Your task to perform on an android device: Open ESPN.com Image 0: 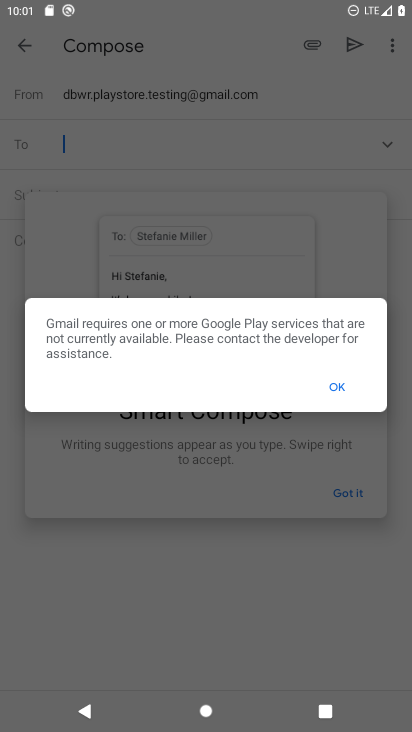
Step 0: press home button
Your task to perform on an android device: Open ESPN.com Image 1: 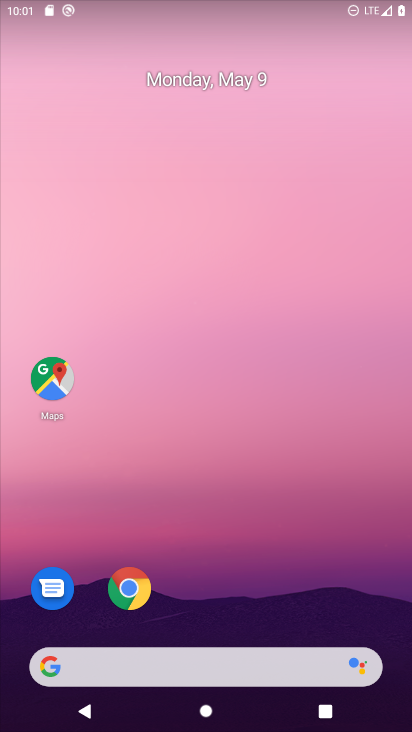
Step 1: drag from (236, 546) to (225, 205)
Your task to perform on an android device: Open ESPN.com Image 2: 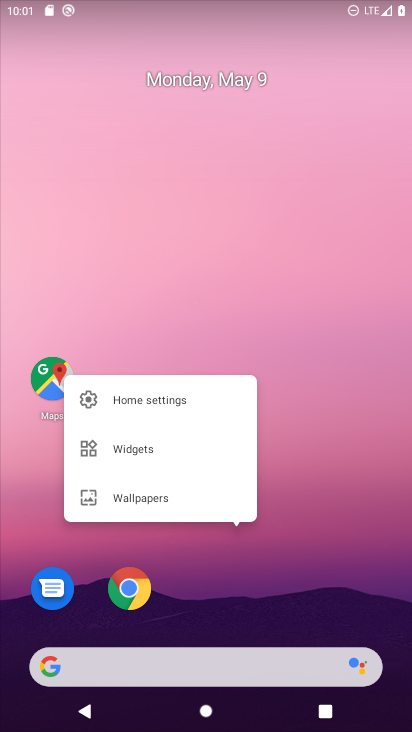
Step 2: click (296, 568)
Your task to perform on an android device: Open ESPN.com Image 3: 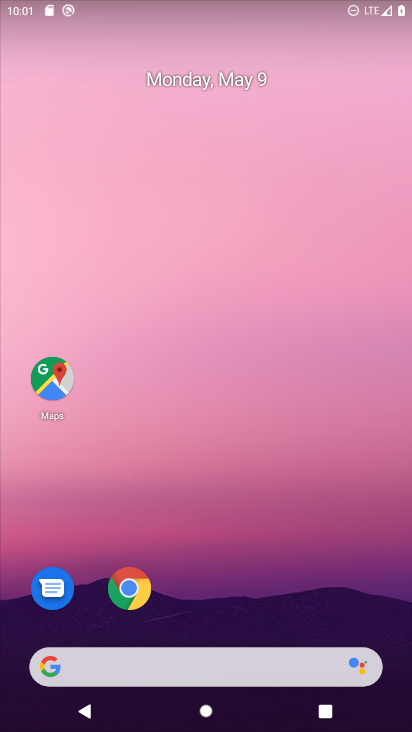
Step 3: drag from (296, 568) to (214, 29)
Your task to perform on an android device: Open ESPN.com Image 4: 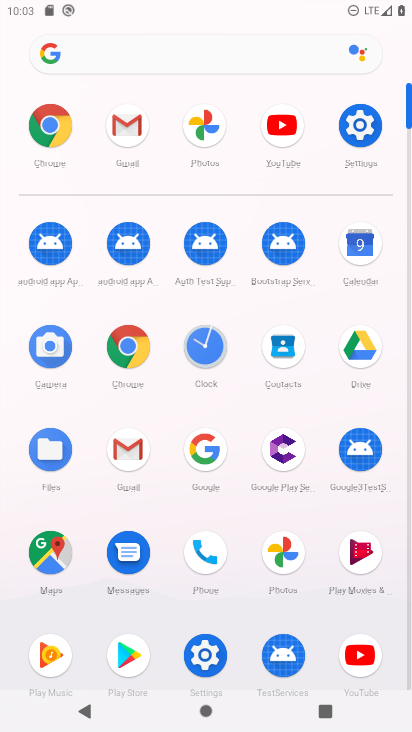
Step 4: click (54, 133)
Your task to perform on an android device: Open ESPN.com Image 5: 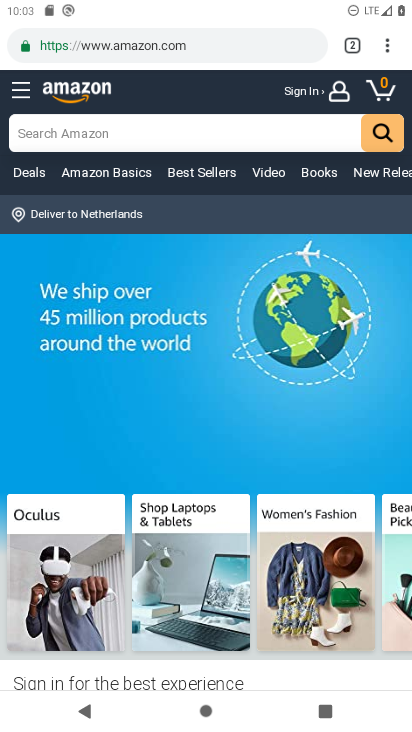
Step 5: click (381, 53)
Your task to perform on an android device: Open ESPN.com Image 6: 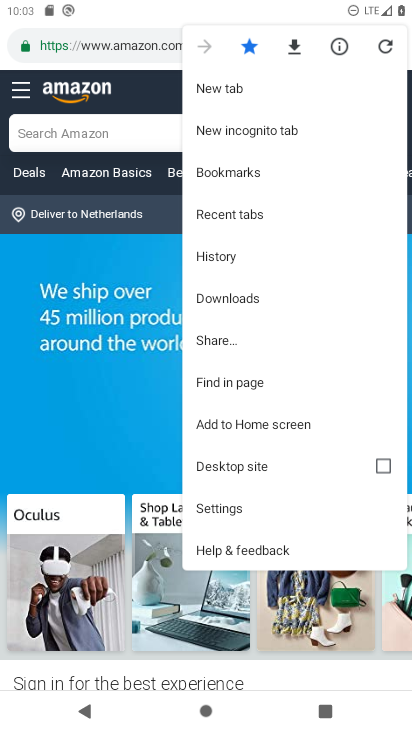
Step 6: click (209, 82)
Your task to perform on an android device: Open ESPN.com Image 7: 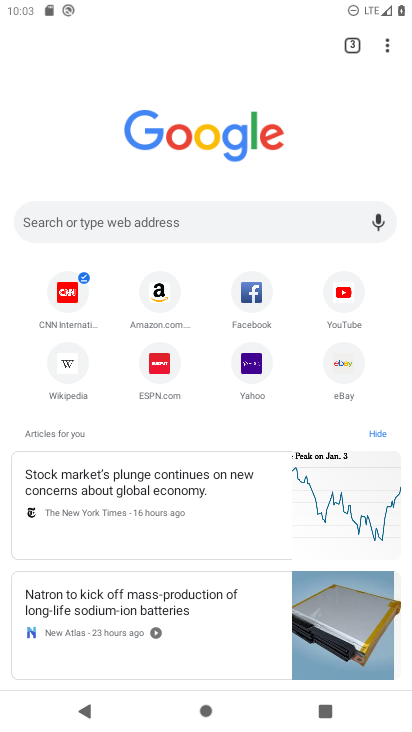
Step 7: click (163, 372)
Your task to perform on an android device: Open ESPN.com Image 8: 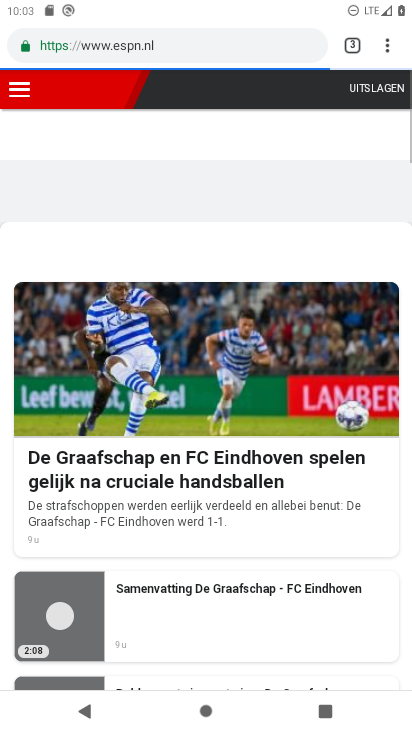
Step 8: task complete